Your task to perform on an android device: Open internet settings Image 0: 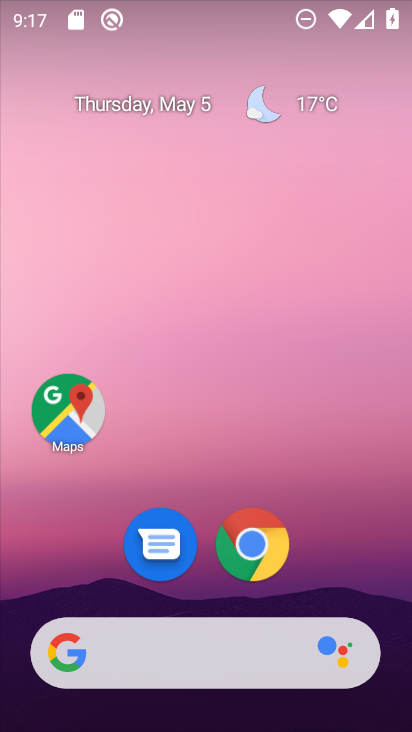
Step 0: drag from (373, 625) to (264, 109)
Your task to perform on an android device: Open internet settings Image 1: 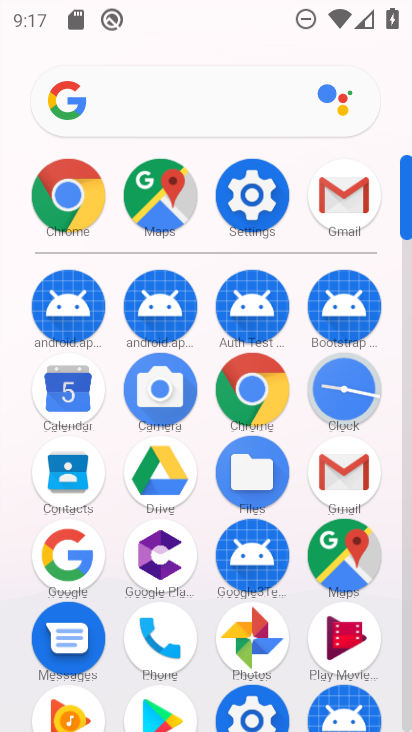
Step 1: click (260, 205)
Your task to perform on an android device: Open internet settings Image 2: 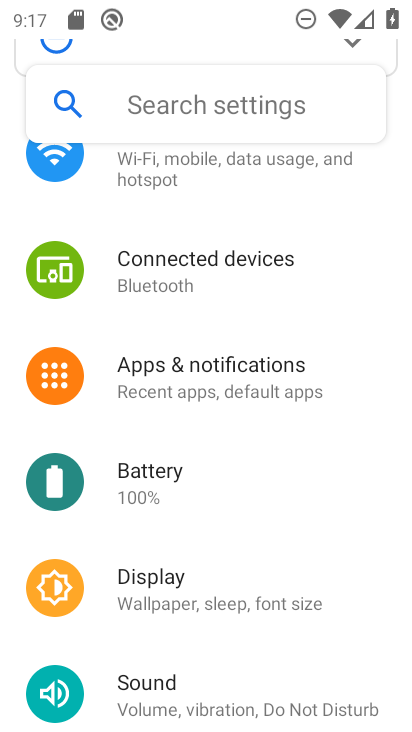
Step 2: drag from (252, 216) to (303, 647)
Your task to perform on an android device: Open internet settings Image 3: 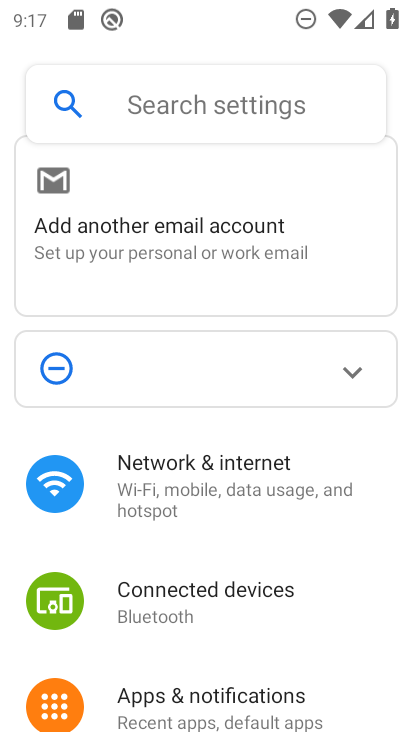
Step 3: click (174, 495)
Your task to perform on an android device: Open internet settings Image 4: 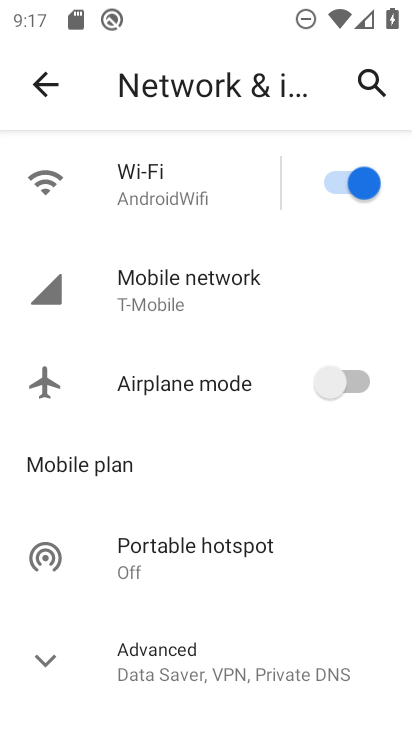
Step 4: task complete